Your task to perform on an android device: Check the weather Image 0: 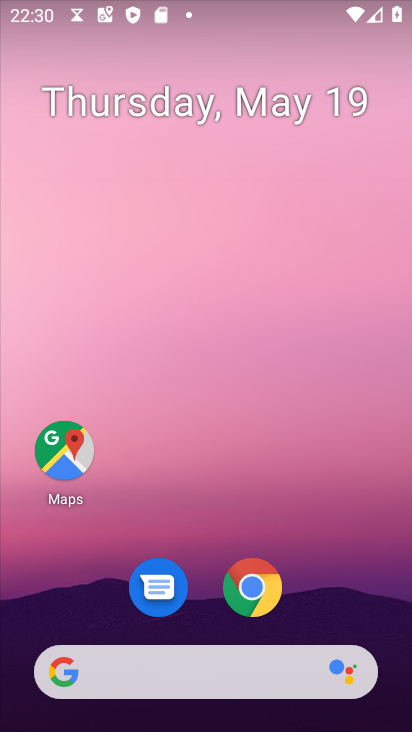
Step 0: drag from (34, 300) to (314, 227)
Your task to perform on an android device: Check the weather Image 1: 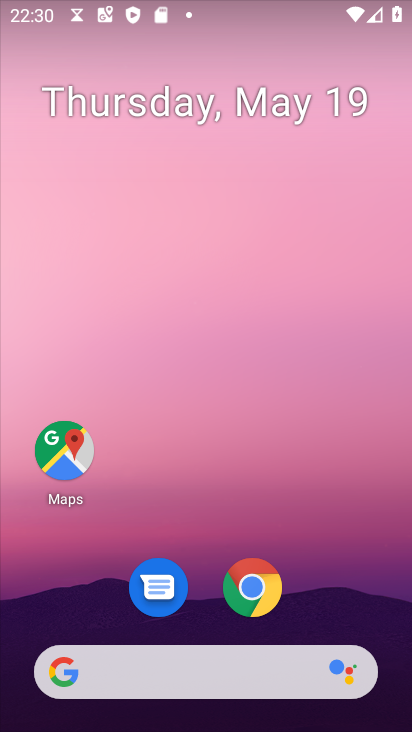
Step 1: drag from (163, 635) to (154, 213)
Your task to perform on an android device: Check the weather Image 2: 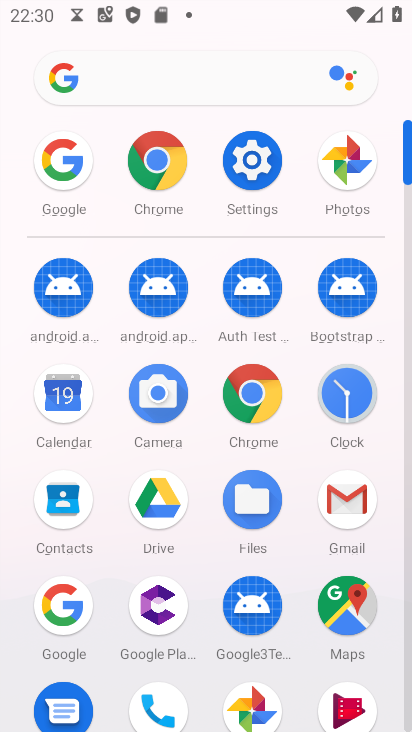
Step 2: click (59, 615)
Your task to perform on an android device: Check the weather Image 3: 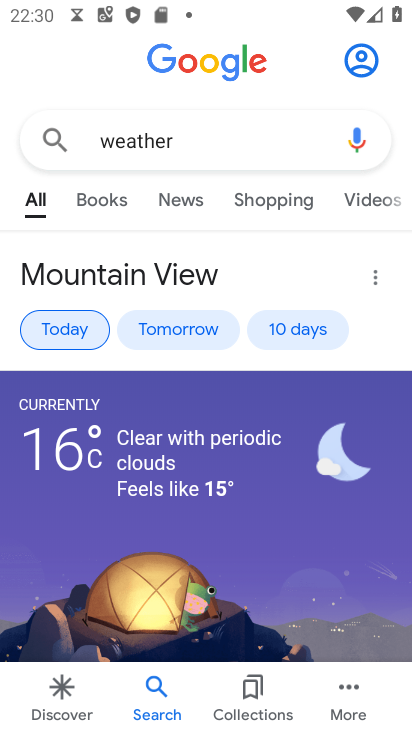
Step 3: task complete